Your task to perform on an android device: turn off location history Image 0: 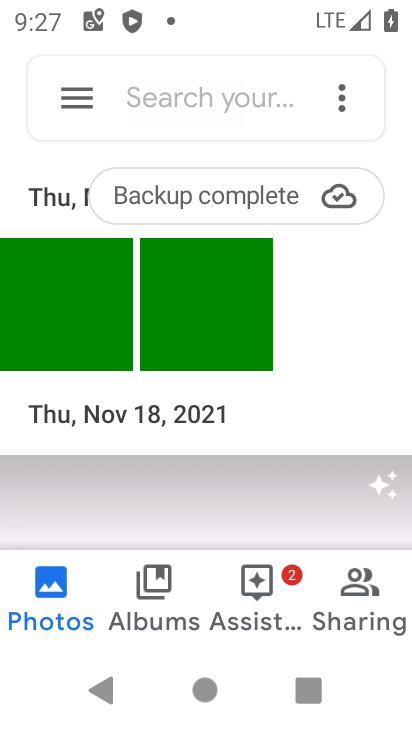
Step 0: press home button
Your task to perform on an android device: turn off location history Image 1: 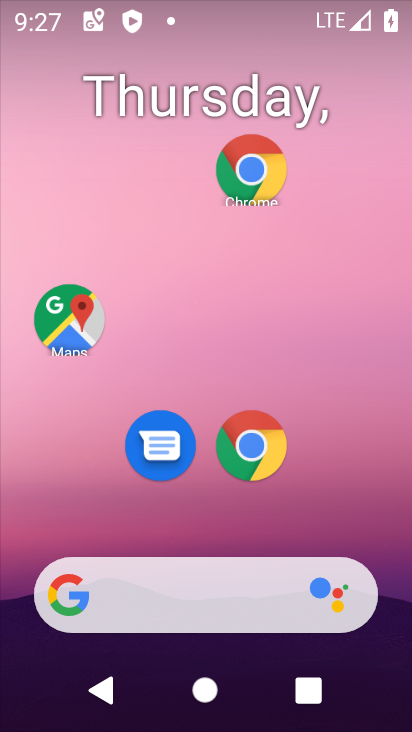
Step 1: drag from (180, 556) to (105, 7)
Your task to perform on an android device: turn off location history Image 2: 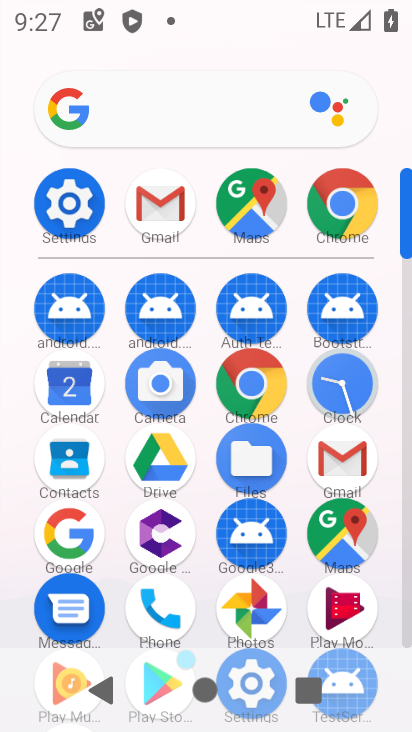
Step 2: click (52, 228)
Your task to perform on an android device: turn off location history Image 3: 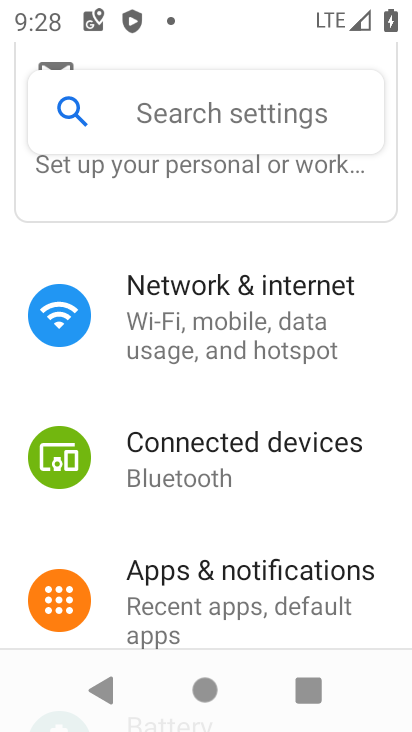
Step 3: drag from (190, 552) to (84, 46)
Your task to perform on an android device: turn off location history Image 4: 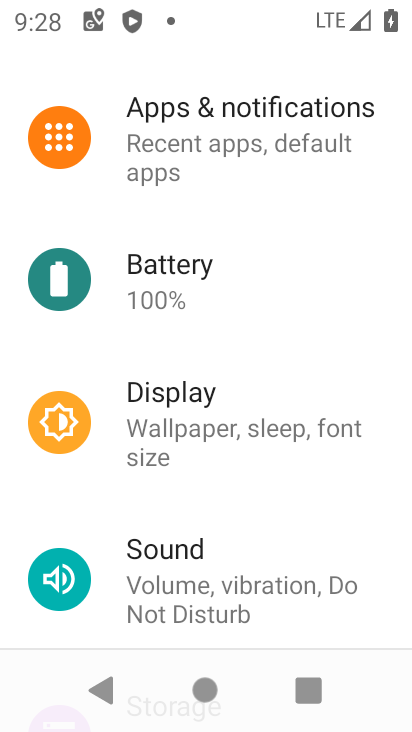
Step 4: drag from (209, 487) to (143, 38)
Your task to perform on an android device: turn off location history Image 5: 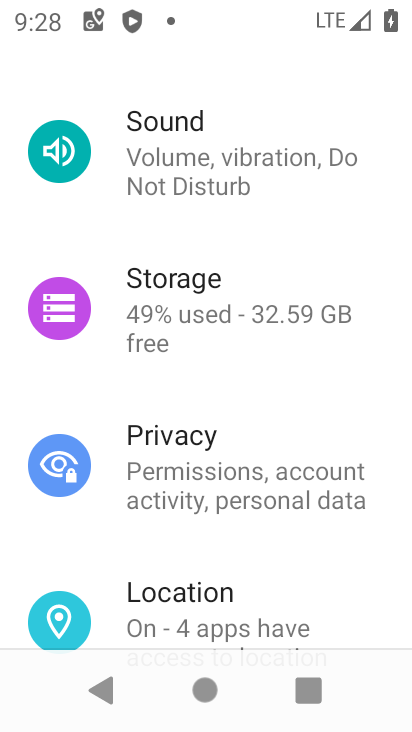
Step 5: click (206, 617)
Your task to perform on an android device: turn off location history Image 6: 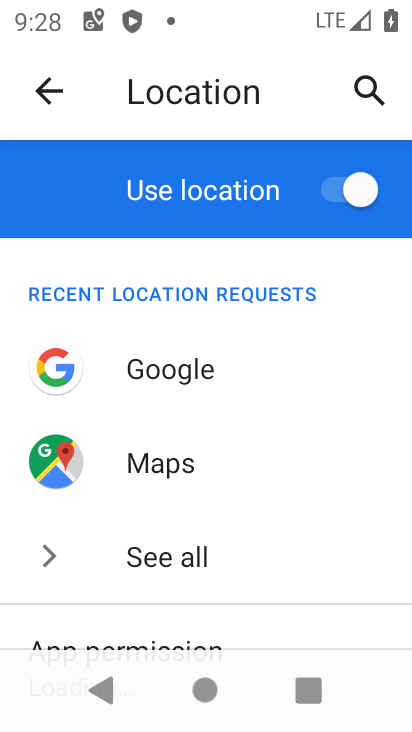
Step 6: drag from (201, 537) to (136, 150)
Your task to perform on an android device: turn off location history Image 7: 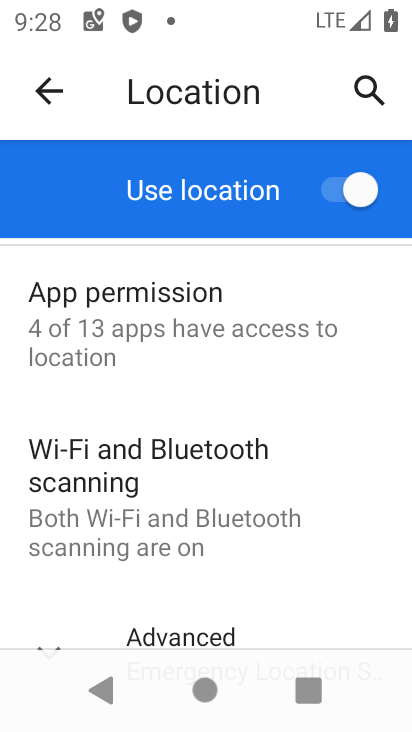
Step 7: drag from (227, 575) to (203, 455)
Your task to perform on an android device: turn off location history Image 8: 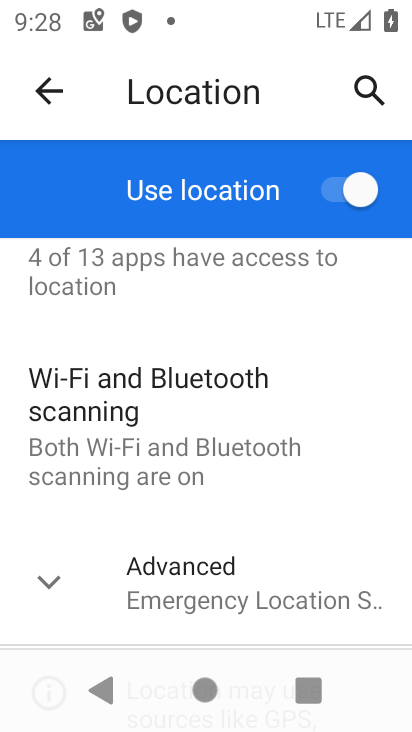
Step 8: click (205, 599)
Your task to perform on an android device: turn off location history Image 9: 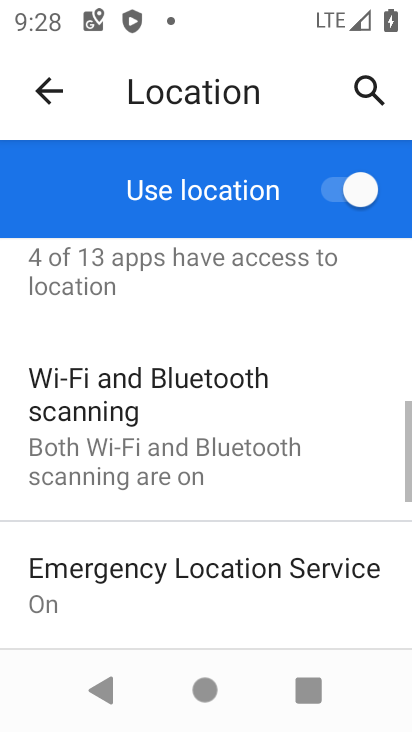
Step 9: drag from (206, 600) to (149, 144)
Your task to perform on an android device: turn off location history Image 10: 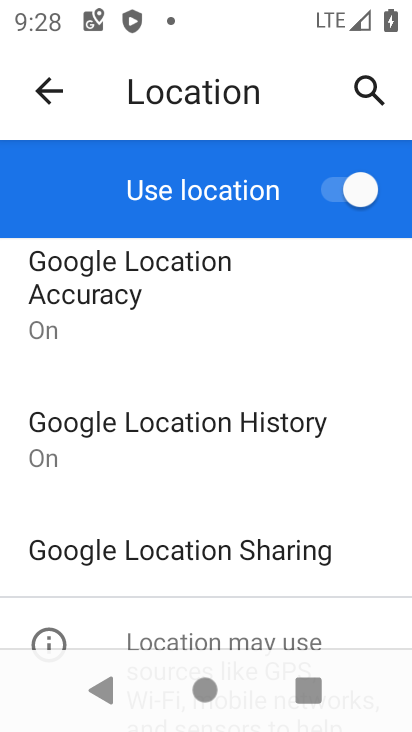
Step 10: click (207, 430)
Your task to perform on an android device: turn off location history Image 11: 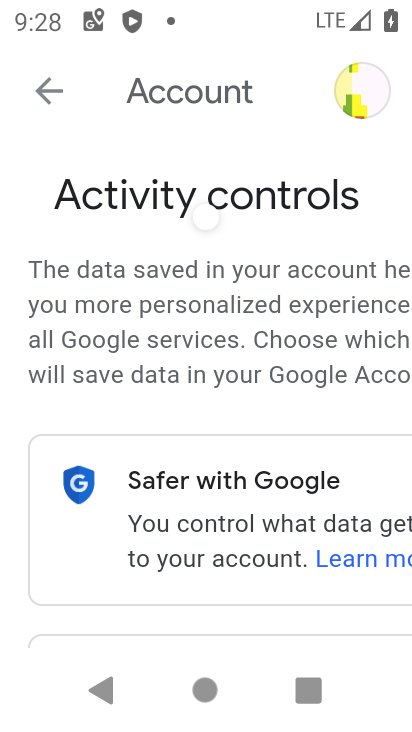
Step 11: drag from (248, 474) to (122, 14)
Your task to perform on an android device: turn off location history Image 12: 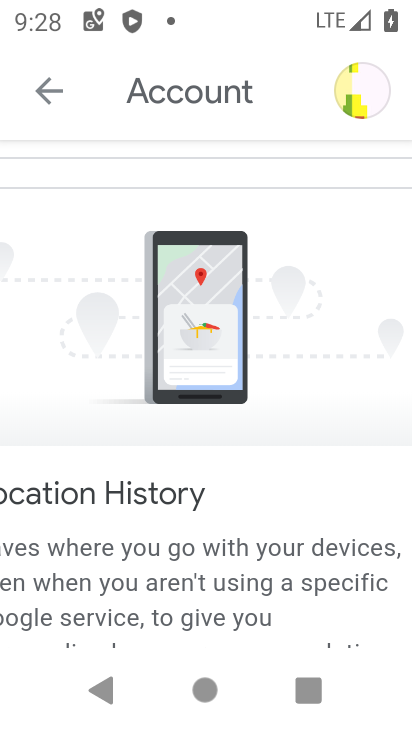
Step 12: drag from (289, 582) to (213, 85)
Your task to perform on an android device: turn off location history Image 13: 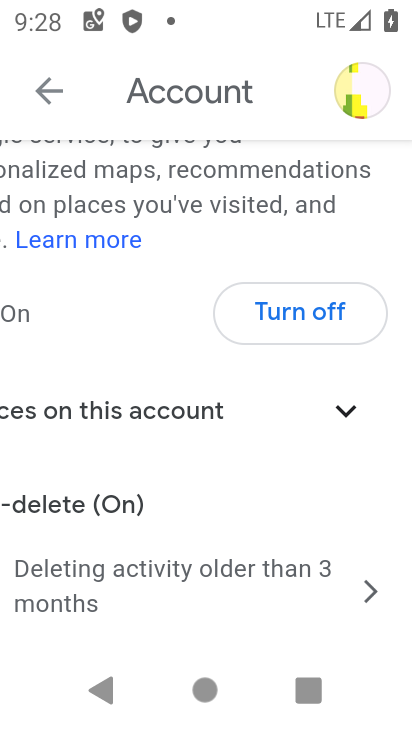
Step 13: click (305, 338)
Your task to perform on an android device: turn off location history Image 14: 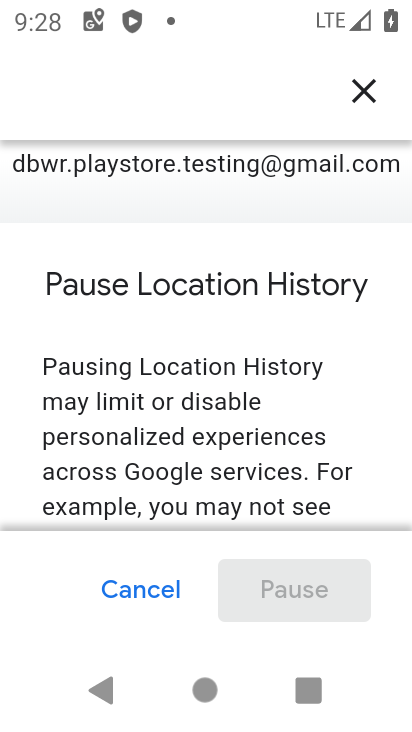
Step 14: drag from (316, 517) to (181, 6)
Your task to perform on an android device: turn off location history Image 15: 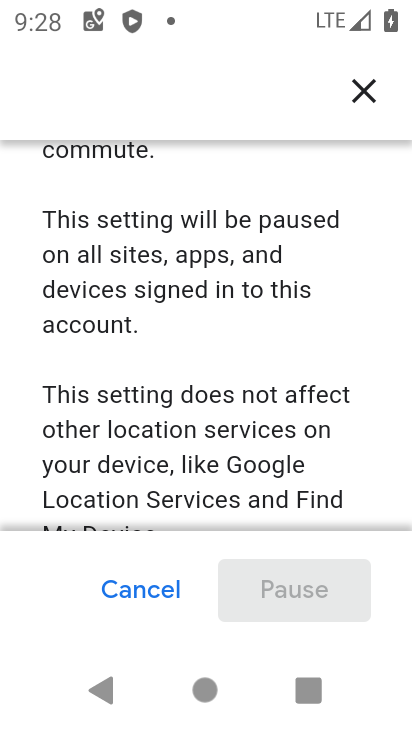
Step 15: drag from (297, 454) to (207, 107)
Your task to perform on an android device: turn off location history Image 16: 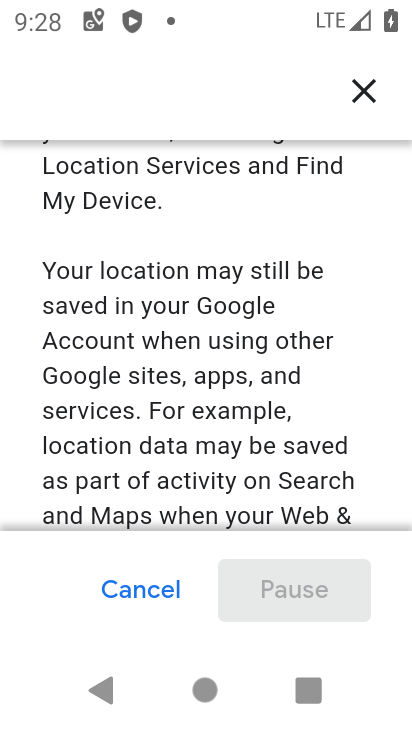
Step 16: drag from (251, 476) to (160, 56)
Your task to perform on an android device: turn off location history Image 17: 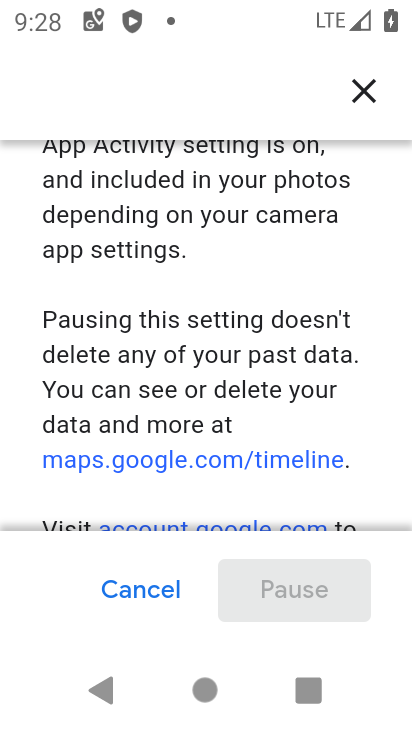
Step 17: drag from (224, 481) to (136, 1)
Your task to perform on an android device: turn off location history Image 18: 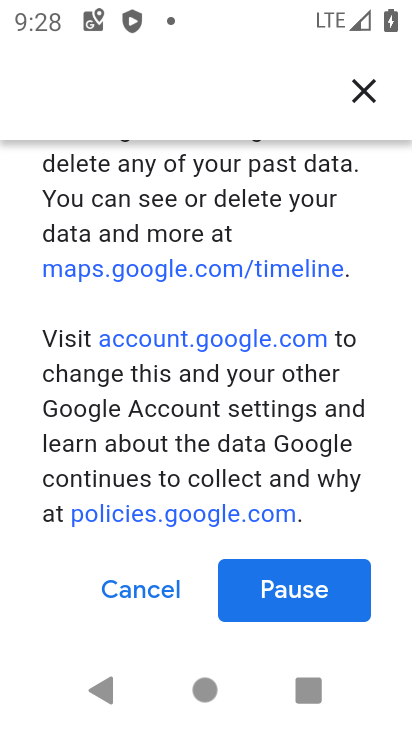
Step 18: click (286, 580)
Your task to perform on an android device: turn off location history Image 19: 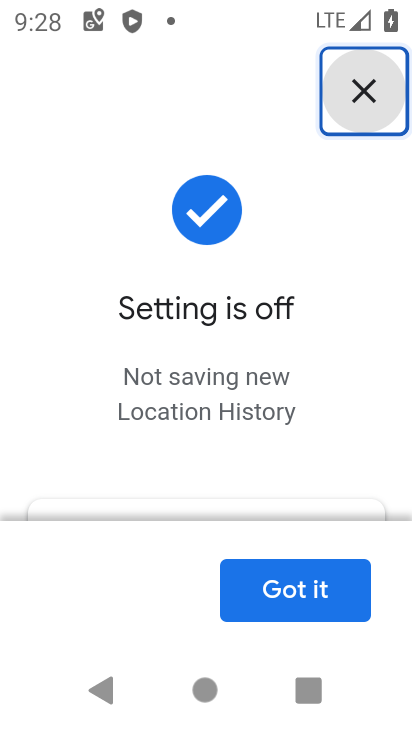
Step 19: click (310, 587)
Your task to perform on an android device: turn off location history Image 20: 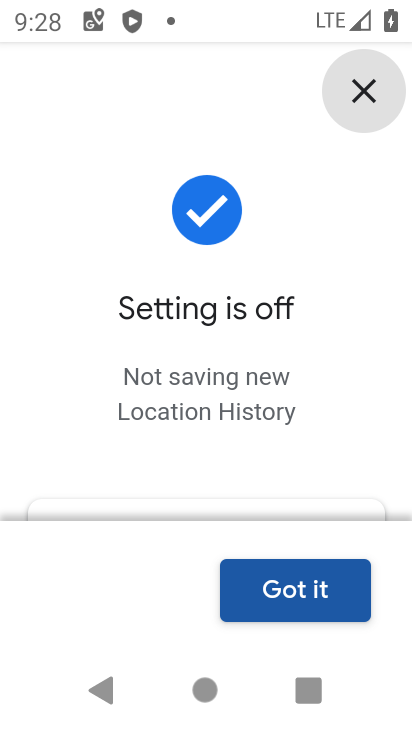
Step 20: task complete